Your task to perform on an android device: toggle notifications settings in the gmail app Image 0: 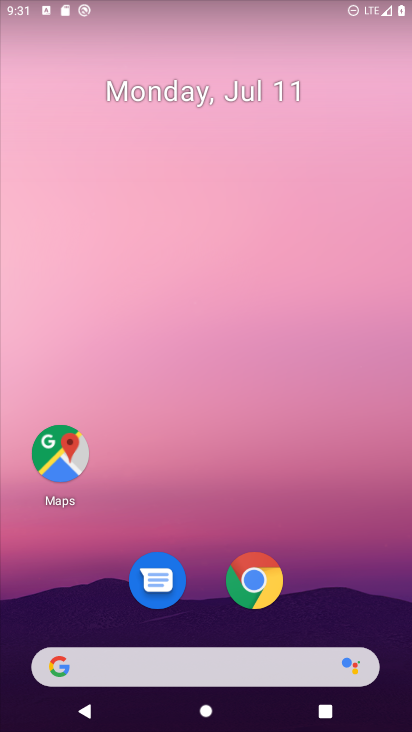
Step 0: drag from (350, 540) to (262, 14)
Your task to perform on an android device: toggle notifications settings in the gmail app Image 1: 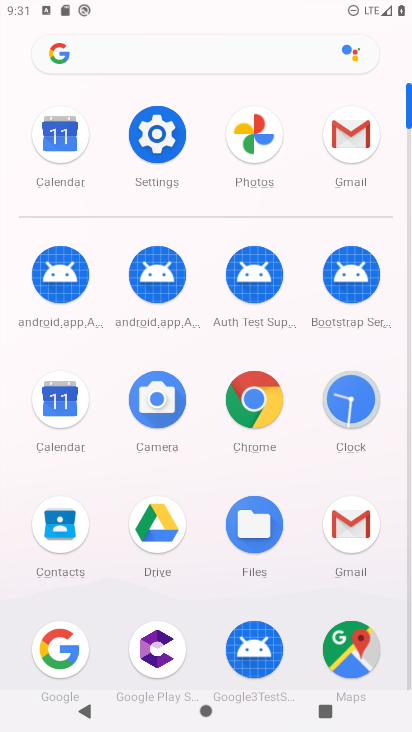
Step 1: click (351, 146)
Your task to perform on an android device: toggle notifications settings in the gmail app Image 2: 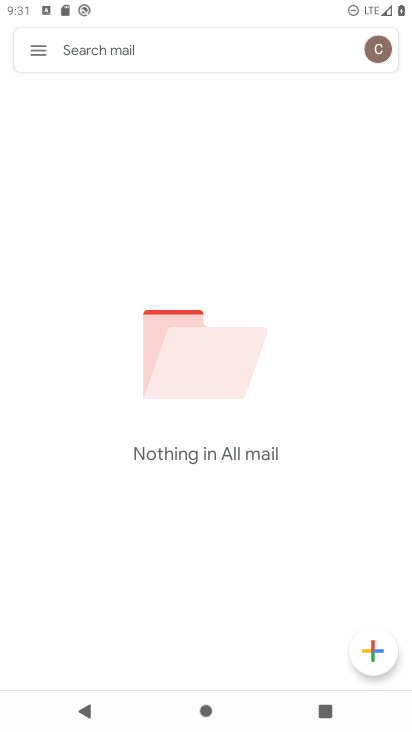
Step 2: click (42, 47)
Your task to perform on an android device: toggle notifications settings in the gmail app Image 3: 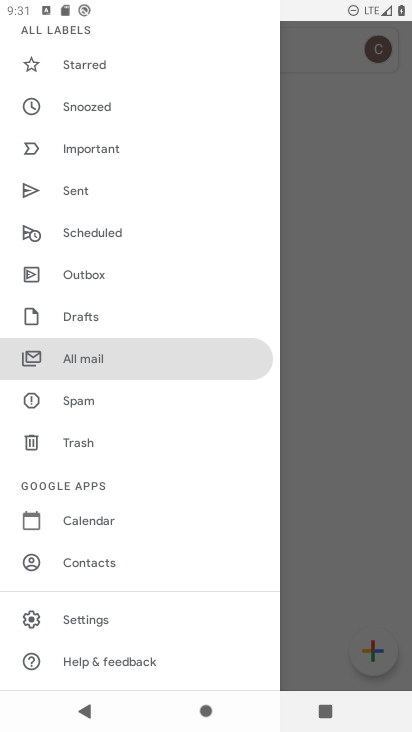
Step 3: click (93, 609)
Your task to perform on an android device: toggle notifications settings in the gmail app Image 4: 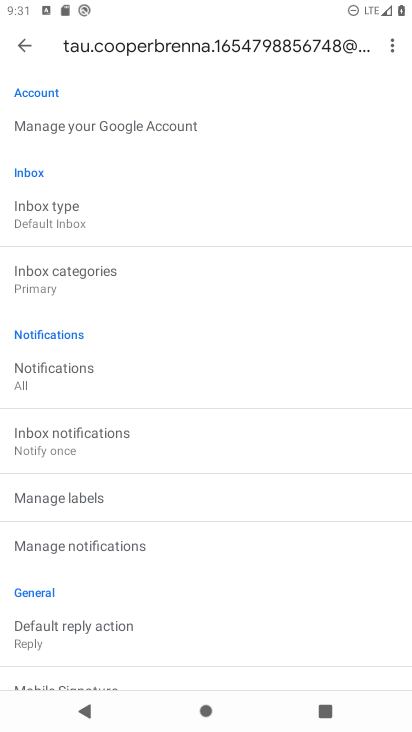
Step 4: click (107, 441)
Your task to perform on an android device: toggle notifications settings in the gmail app Image 5: 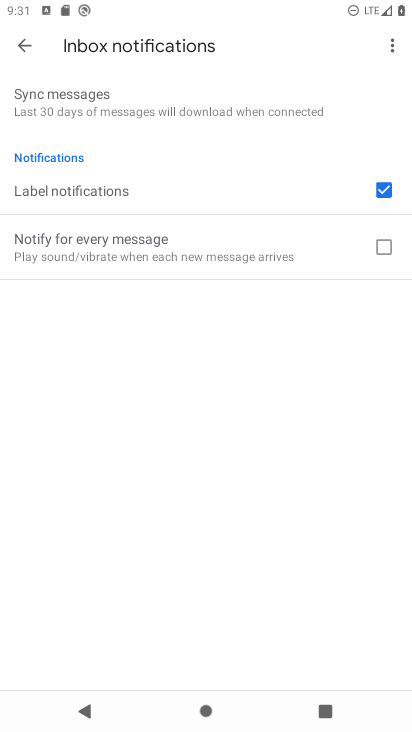
Step 5: click (22, 39)
Your task to perform on an android device: toggle notifications settings in the gmail app Image 6: 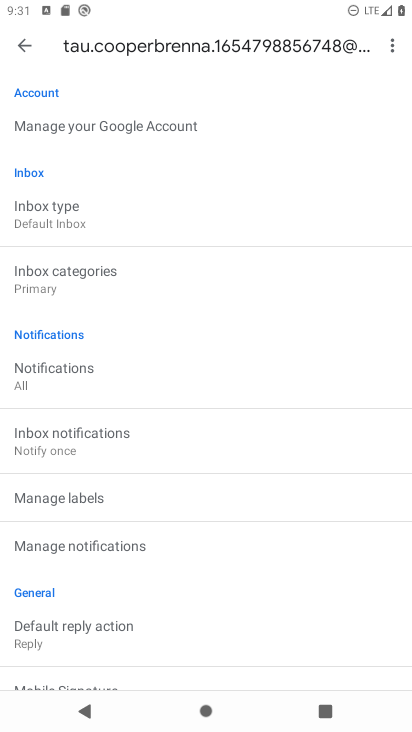
Step 6: click (152, 549)
Your task to perform on an android device: toggle notifications settings in the gmail app Image 7: 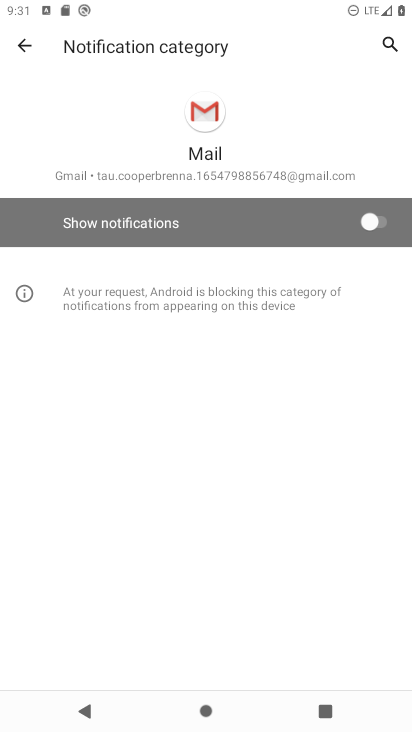
Step 7: click (379, 215)
Your task to perform on an android device: toggle notifications settings in the gmail app Image 8: 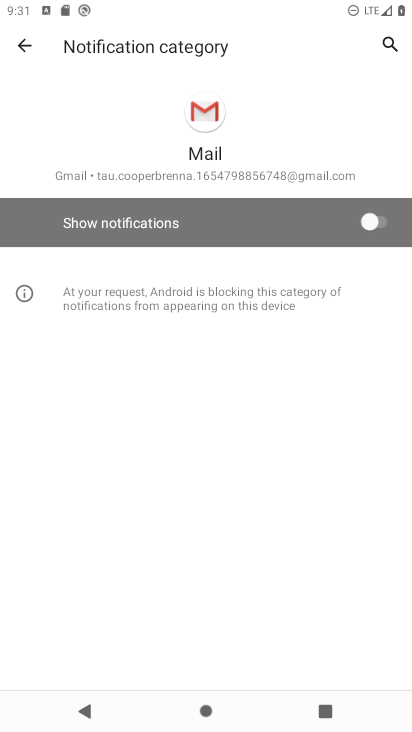
Step 8: click (375, 222)
Your task to perform on an android device: toggle notifications settings in the gmail app Image 9: 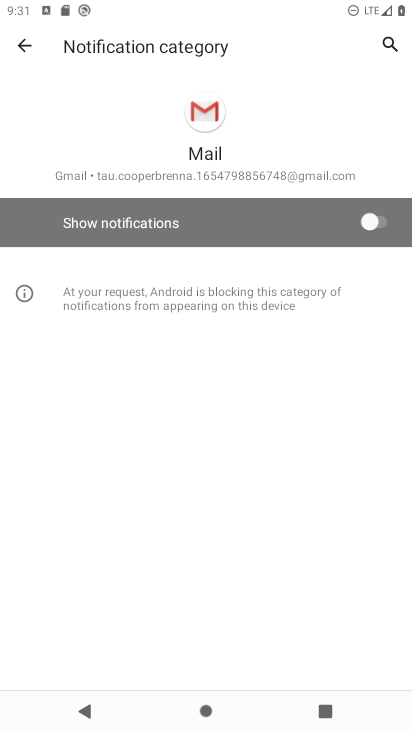
Step 9: click (21, 48)
Your task to perform on an android device: toggle notifications settings in the gmail app Image 10: 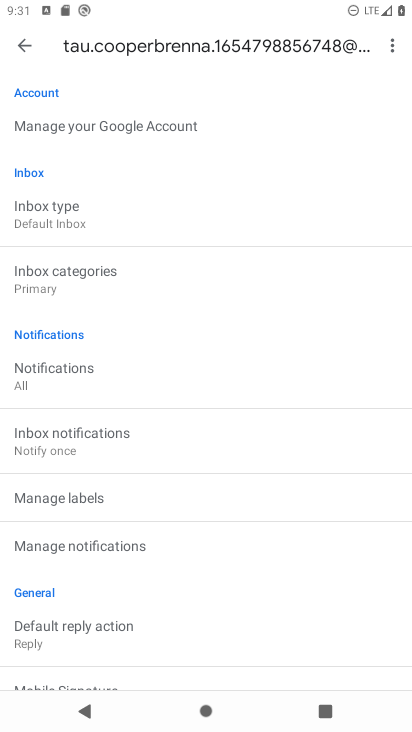
Step 10: click (21, 48)
Your task to perform on an android device: toggle notifications settings in the gmail app Image 11: 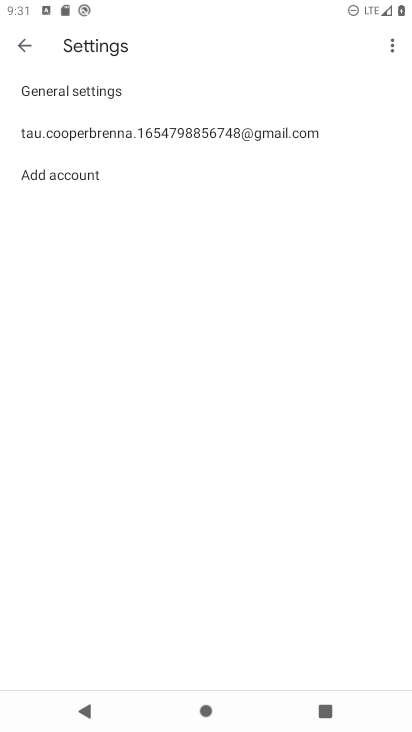
Step 11: click (69, 95)
Your task to perform on an android device: toggle notifications settings in the gmail app Image 12: 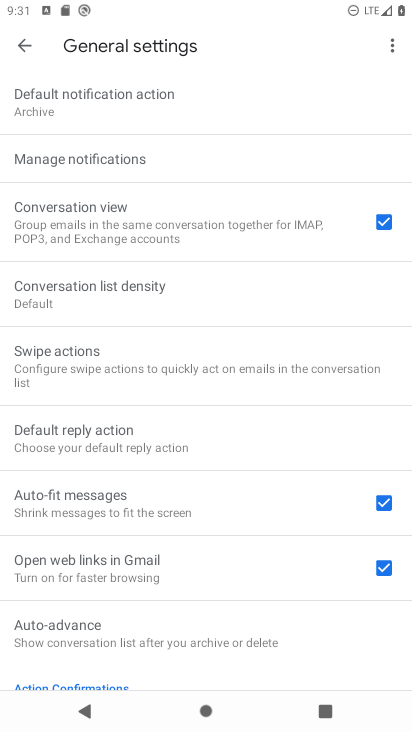
Step 12: click (116, 160)
Your task to perform on an android device: toggle notifications settings in the gmail app Image 13: 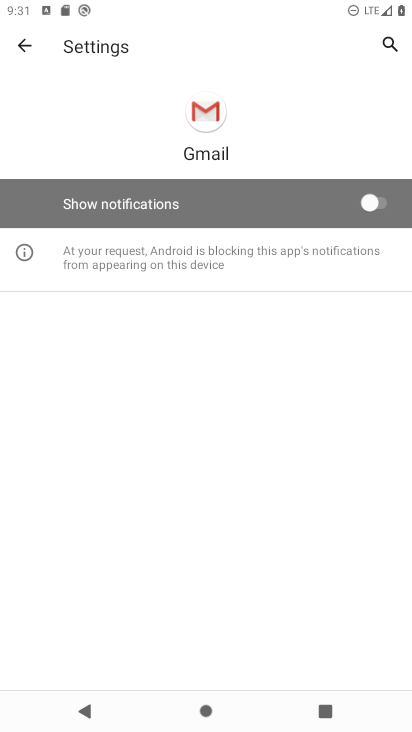
Step 13: click (377, 200)
Your task to perform on an android device: toggle notifications settings in the gmail app Image 14: 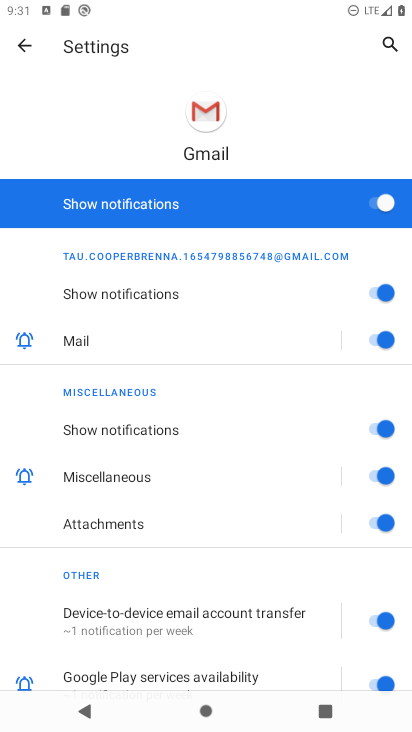
Step 14: task complete